Your task to perform on an android device: add a contact in the contacts app Image 0: 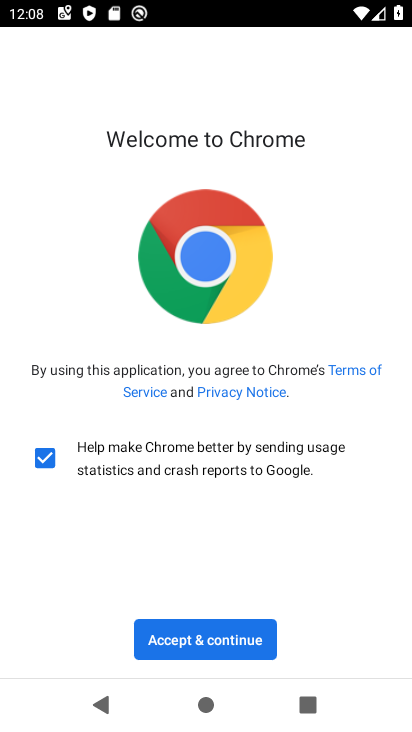
Step 0: press home button
Your task to perform on an android device: add a contact in the contacts app Image 1: 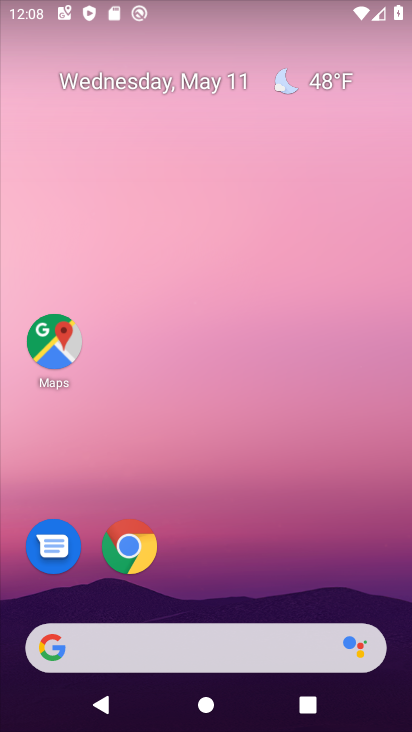
Step 1: drag from (180, 590) to (287, 156)
Your task to perform on an android device: add a contact in the contacts app Image 2: 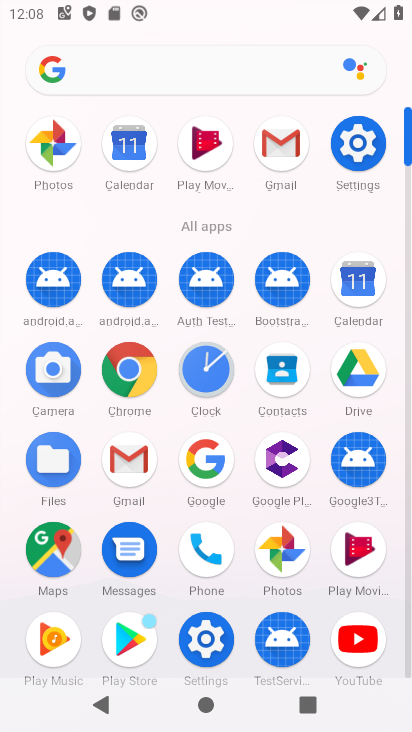
Step 2: click (283, 371)
Your task to perform on an android device: add a contact in the contacts app Image 3: 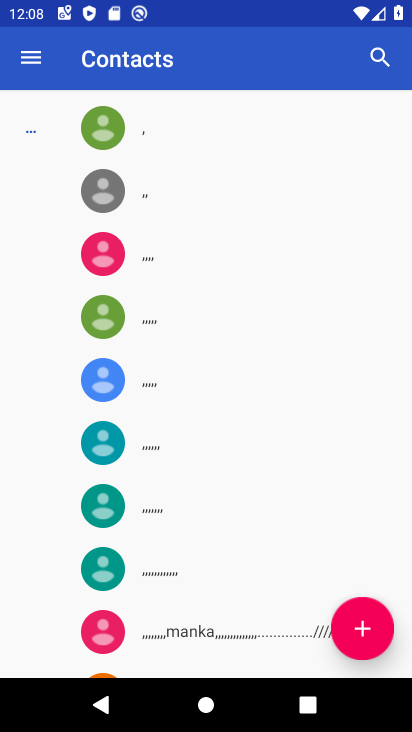
Step 3: click (364, 635)
Your task to perform on an android device: add a contact in the contacts app Image 4: 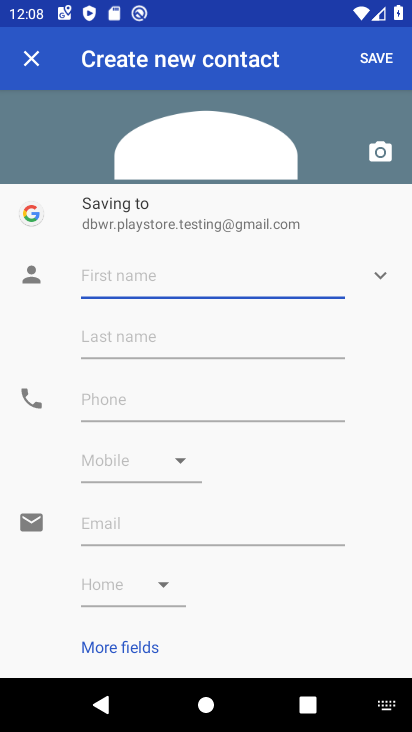
Step 4: type "vrfg"
Your task to perform on an android device: add a contact in the contacts app Image 5: 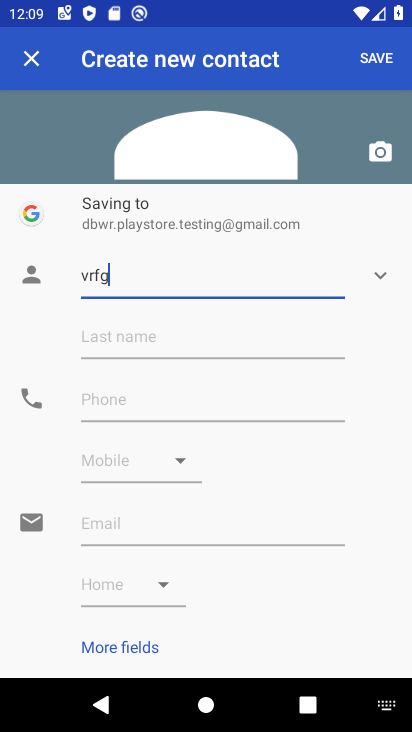
Step 5: click (110, 400)
Your task to perform on an android device: add a contact in the contacts app Image 6: 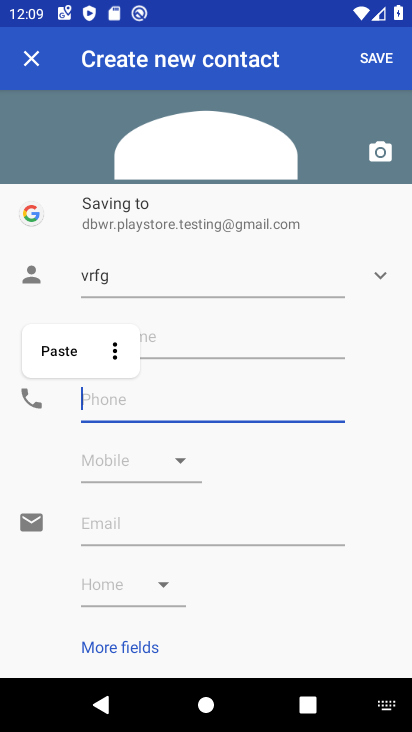
Step 6: type "2314"
Your task to perform on an android device: add a contact in the contacts app Image 7: 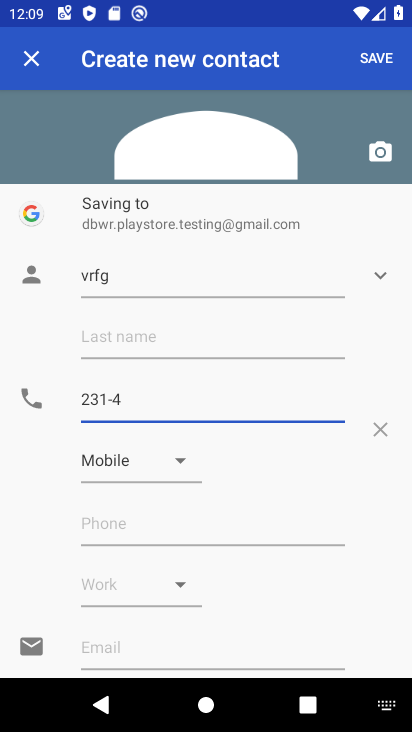
Step 7: click (379, 63)
Your task to perform on an android device: add a contact in the contacts app Image 8: 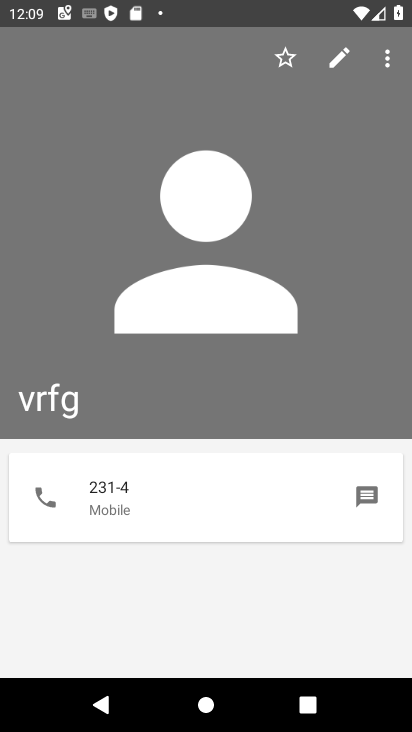
Step 8: task complete